Your task to perform on an android device: Open Google Maps Image 0: 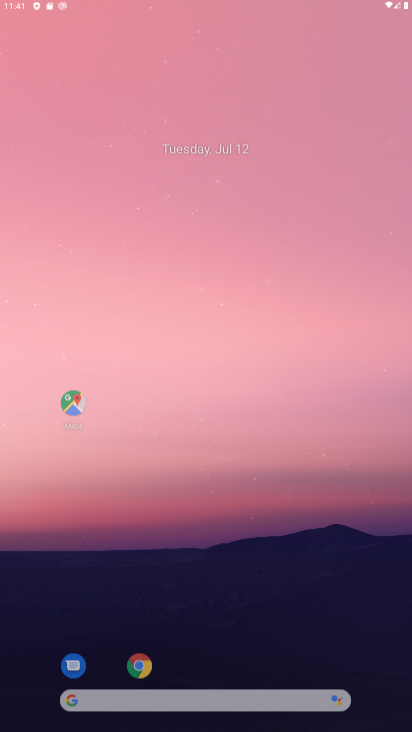
Step 0: click (197, 312)
Your task to perform on an android device: Open Google Maps Image 1: 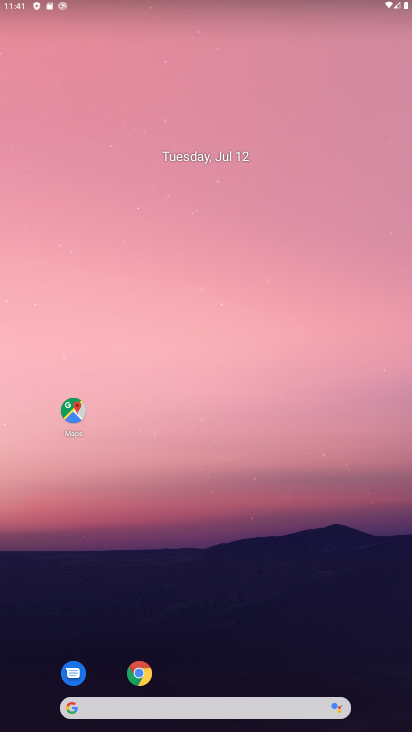
Step 1: drag from (199, 659) to (206, 201)
Your task to perform on an android device: Open Google Maps Image 2: 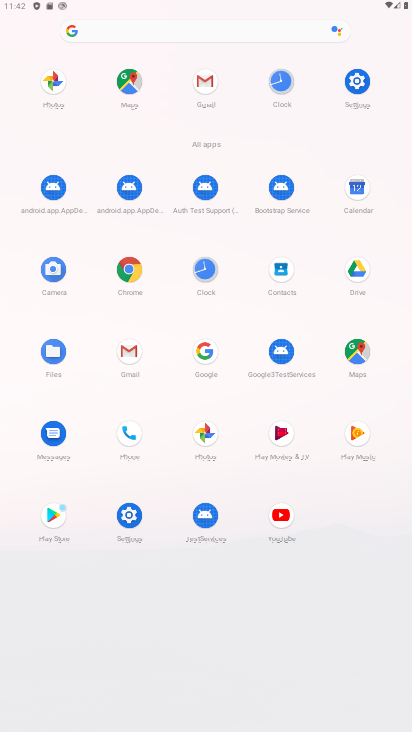
Step 2: click (353, 353)
Your task to perform on an android device: Open Google Maps Image 3: 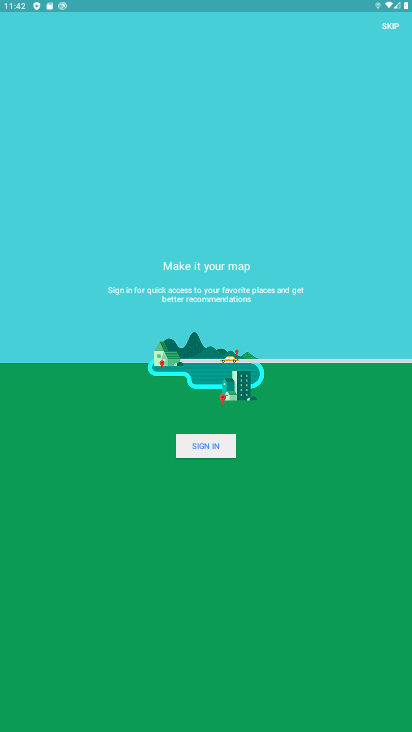
Step 3: drag from (239, 510) to (301, 202)
Your task to perform on an android device: Open Google Maps Image 4: 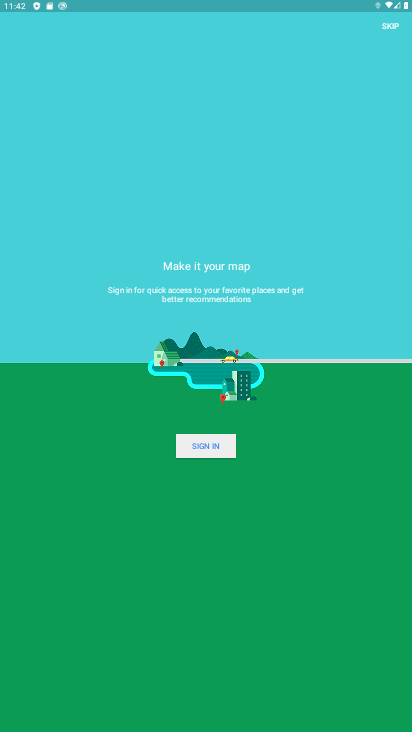
Step 4: press home button
Your task to perform on an android device: Open Google Maps Image 5: 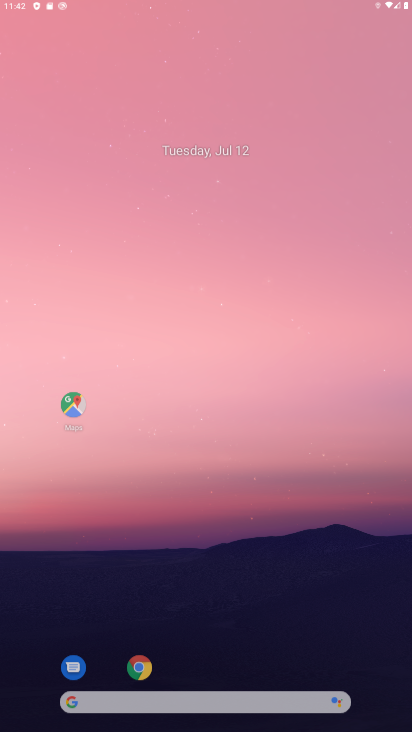
Step 5: drag from (220, 673) to (341, 163)
Your task to perform on an android device: Open Google Maps Image 6: 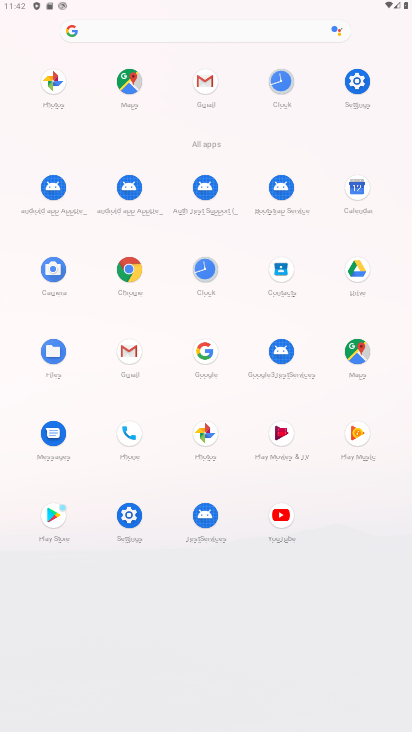
Step 6: click (350, 351)
Your task to perform on an android device: Open Google Maps Image 7: 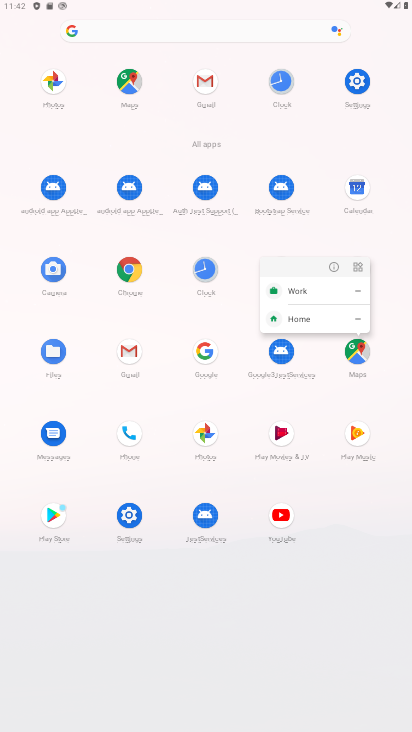
Step 7: click (327, 262)
Your task to perform on an android device: Open Google Maps Image 8: 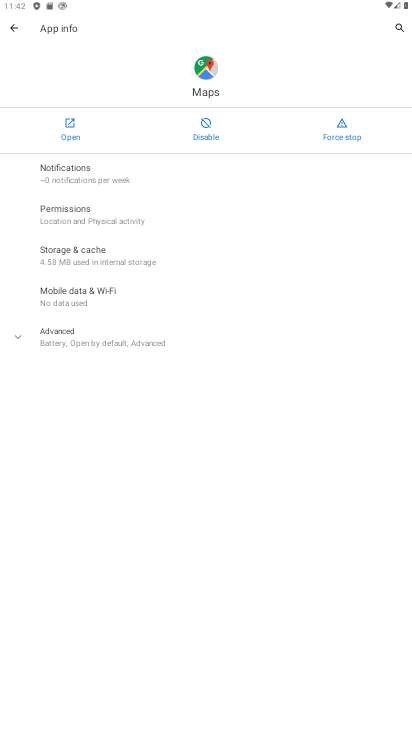
Step 8: click (72, 137)
Your task to perform on an android device: Open Google Maps Image 9: 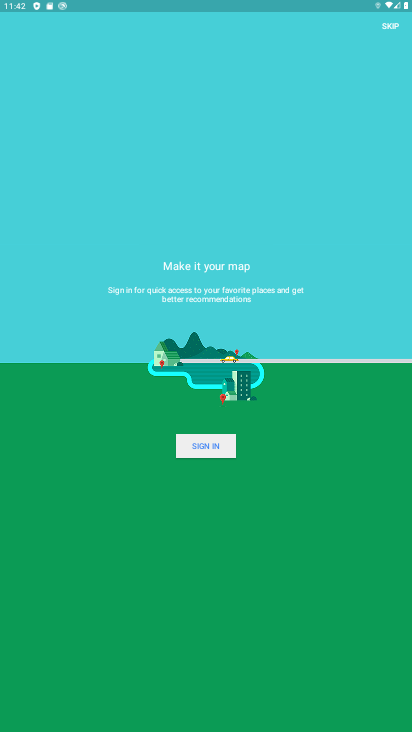
Step 9: task complete